Your task to perform on an android device: Go to ESPN.com Image 0: 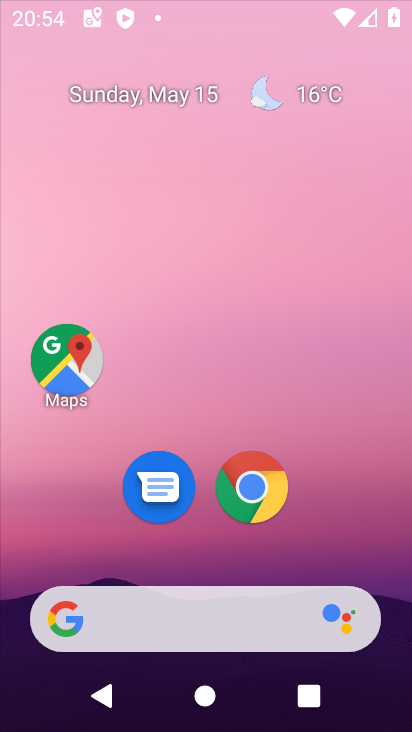
Step 0: drag from (404, 666) to (388, 318)
Your task to perform on an android device: Go to ESPN.com Image 1: 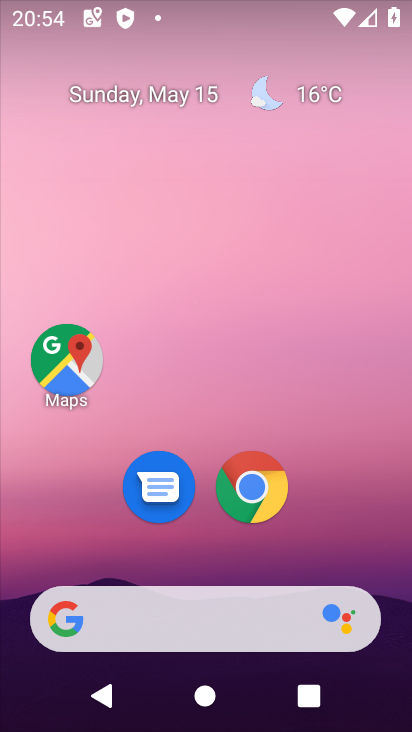
Step 1: drag from (393, 675) to (384, 311)
Your task to perform on an android device: Go to ESPN.com Image 2: 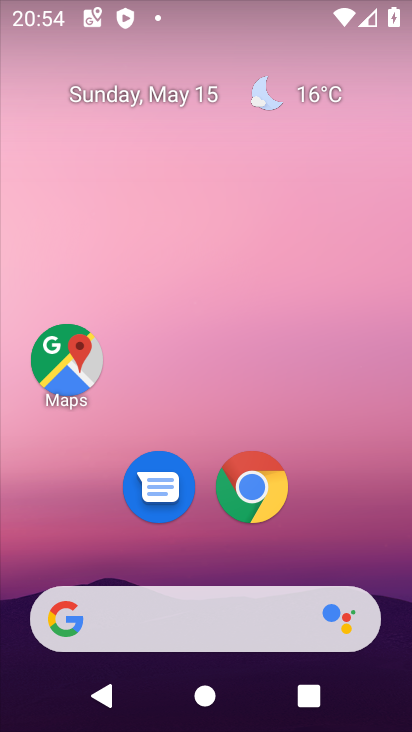
Step 2: click (246, 484)
Your task to perform on an android device: Go to ESPN.com Image 3: 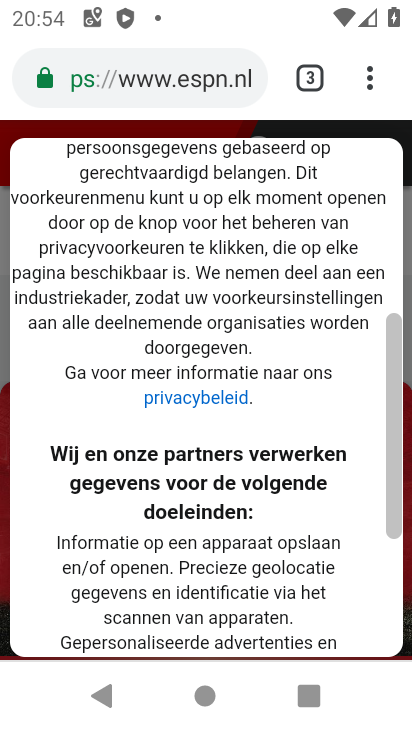
Step 3: click (253, 72)
Your task to perform on an android device: Go to ESPN.com Image 4: 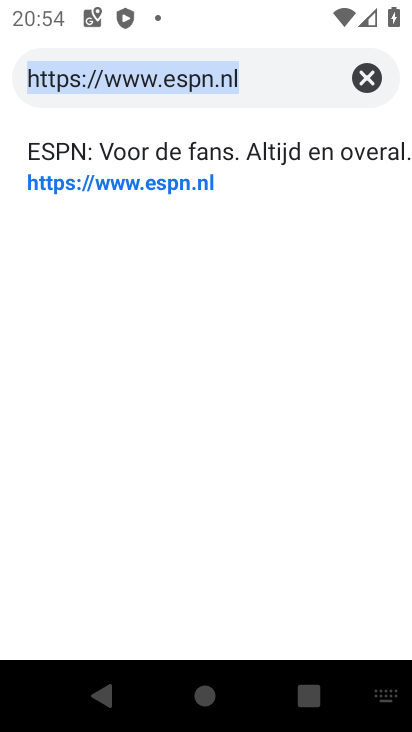
Step 4: click (357, 79)
Your task to perform on an android device: Go to ESPN.com Image 5: 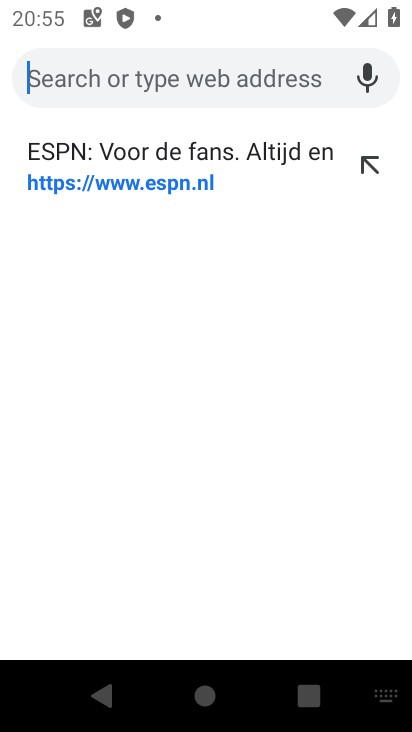
Step 5: type "ESPN.com"
Your task to perform on an android device: Go to ESPN.com Image 6: 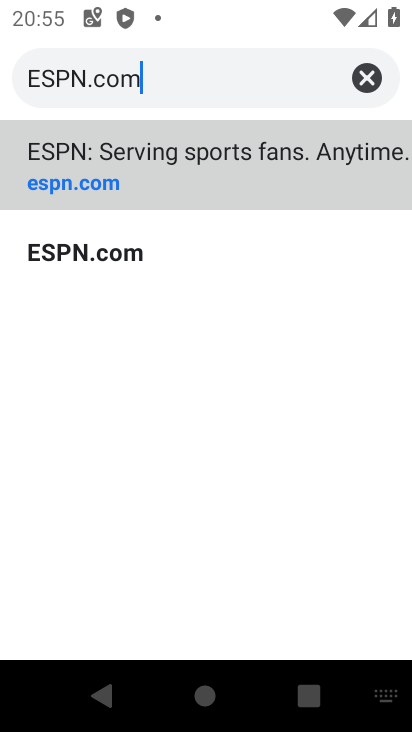
Step 6: click (42, 251)
Your task to perform on an android device: Go to ESPN.com Image 7: 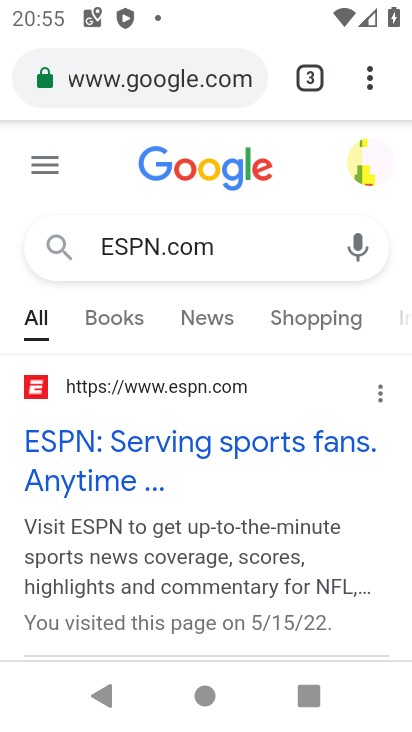
Step 7: task complete